Your task to perform on an android device: Open calendar and show me the first week of next month Image 0: 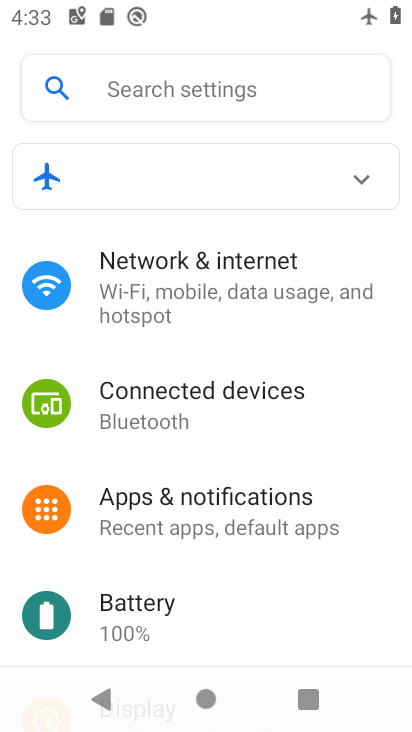
Step 0: press home button
Your task to perform on an android device: Open calendar and show me the first week of next month Image 1: 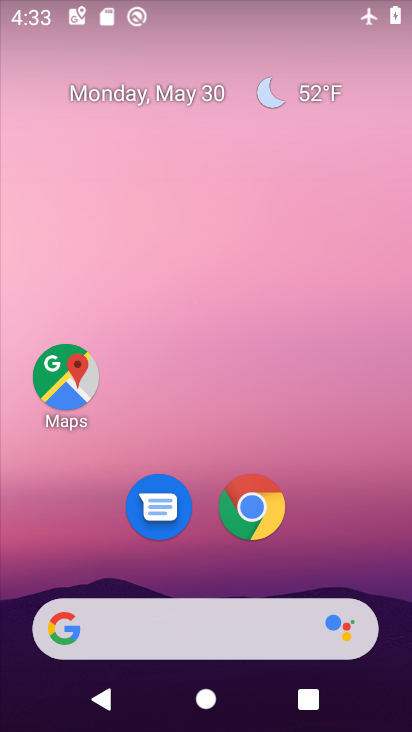
Step 1: click (269, 507)
Your task to perform on an android device: Open calendar and show me the first week of next month Image 2: 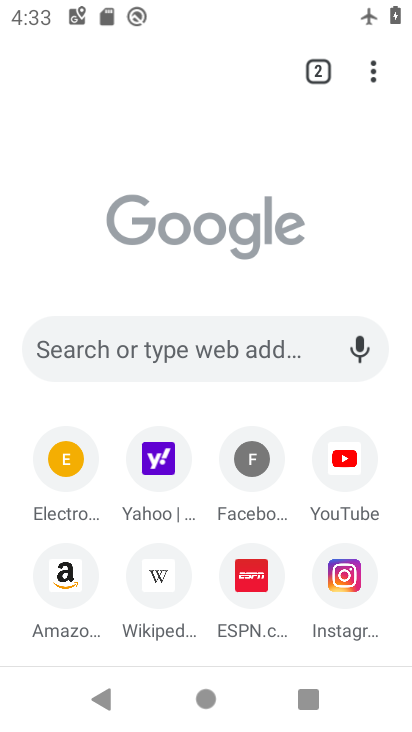
Step 2: press home button
Your task to perform on an android device: Open calendar and show me the first week of next month Image 3: 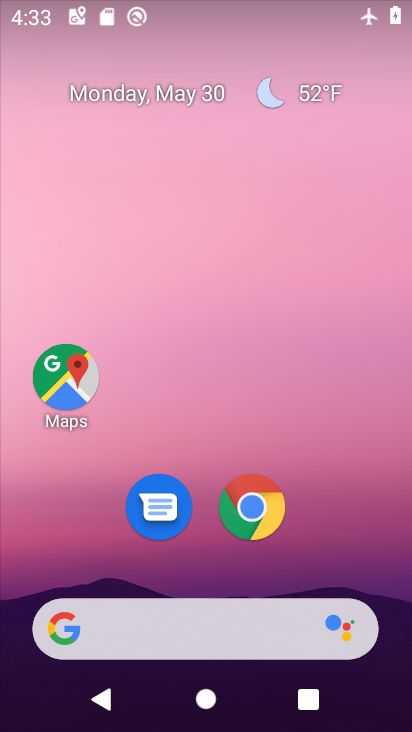
Step 3: drag from (339, 539) to (391, 95)
Your task to perform on an android device: Open calendar and show me the first week of next month Image 4: 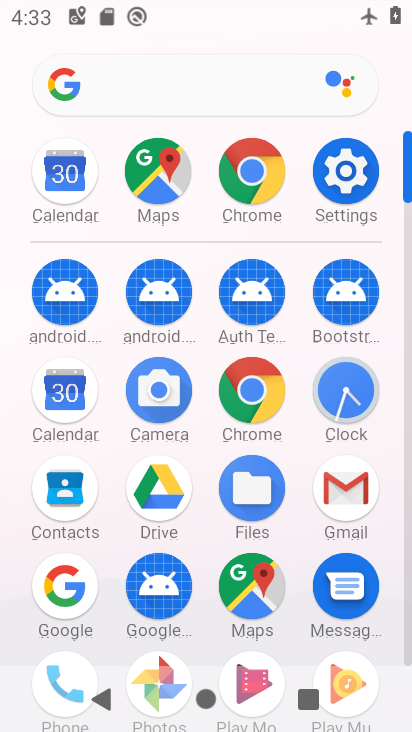
Step 4: click (53, 169)
Your task to perform on an android device: Open calendar and show me the first week of next month Image 5: 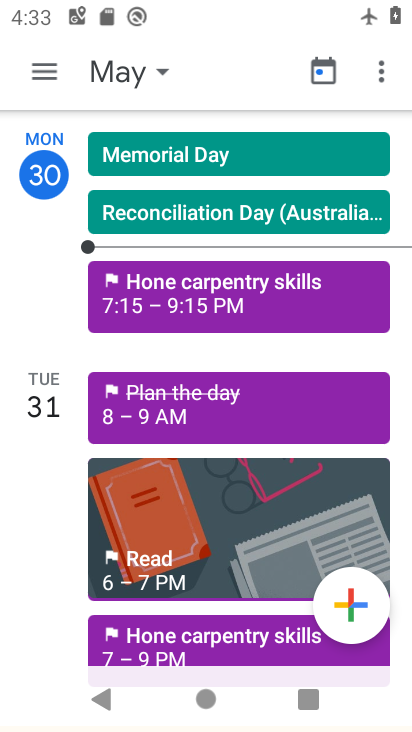
Step 5: click (164, 68)
Your task to perform on an android device: Open calendar and show me the first week of next month Image 6: 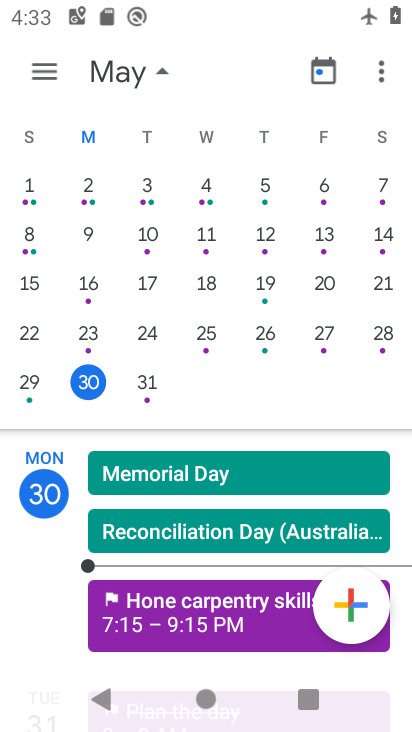
Step 6: task complete